Your task to perform on an android device: Go to internet settings Image 0: 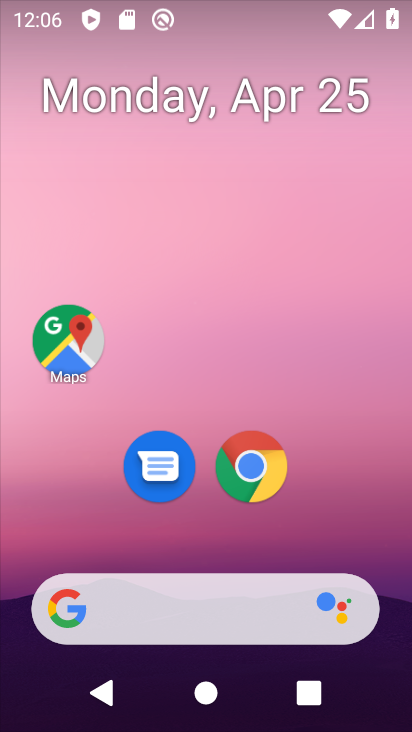
Step 0: drag from (284, 349) to (312, 47)
Your task to perform on an android device: Go to internet settings Image 1: 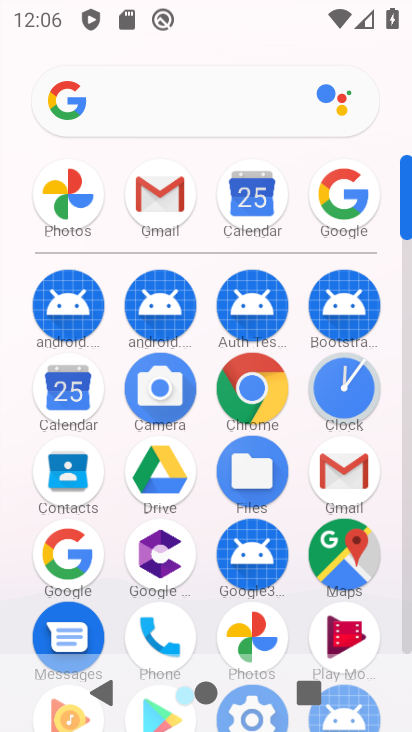
Step 1: drag from (254, 428) to (255, 177)
Your task to perform on an android device: Go to internet settings Image 2: 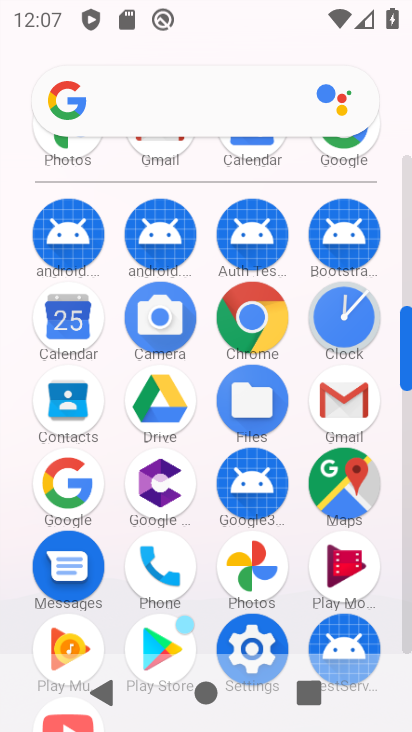
Step 2: click (272, 640)
Your task to perform on an android device: Go to internet settings Image 3: 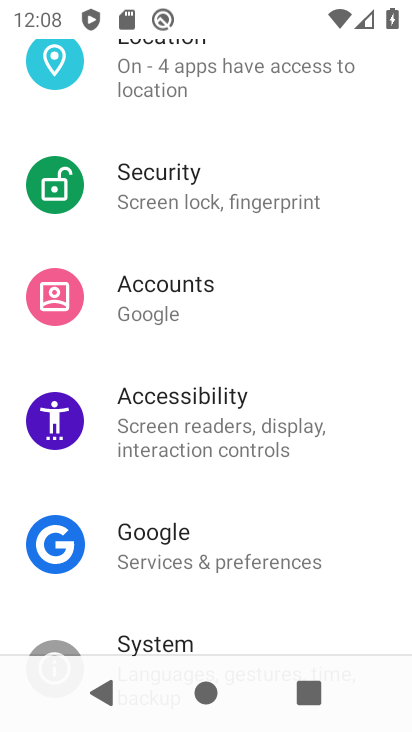
Step 3: drag from (322, 293) to (279, 730)
Your task to perform on an android device: Go to internet settings Image 4: 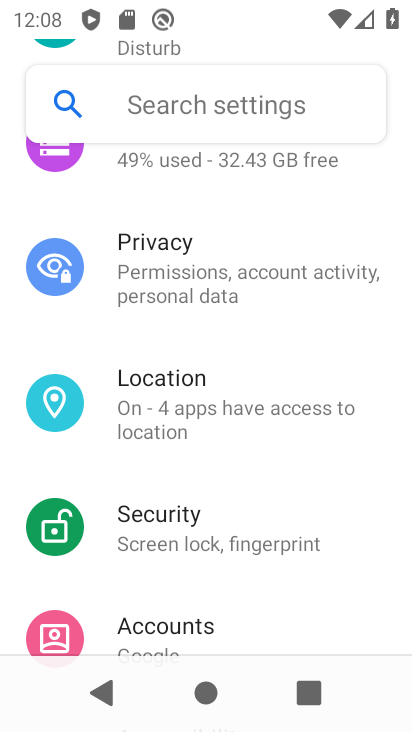
Step 4: drag from (275, 303) to (219, 659)
Your task to perform on an android device: Go to internet settings Image 5: 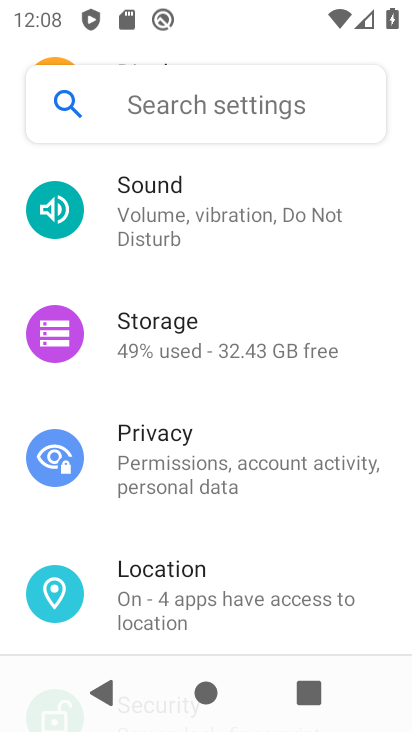
Step 5: drag from (273, 182) to (243, 573)
Your task to perform on an android device: Go to internet settings Image 6: 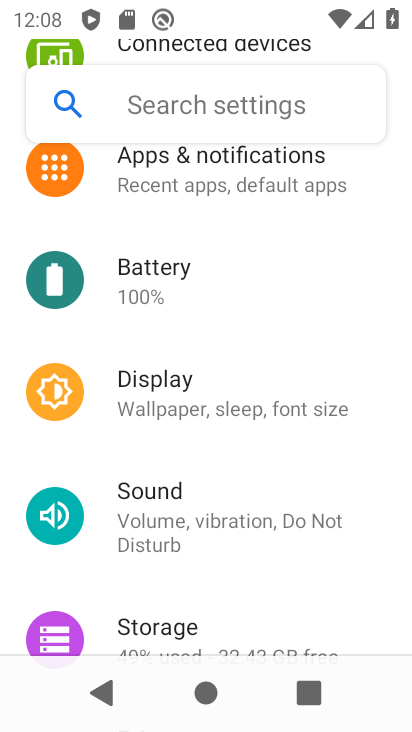
Step 6: drag from (317, 236) to (286, 575)
Your task to perform on an android device: Go to internet settings Image 7: 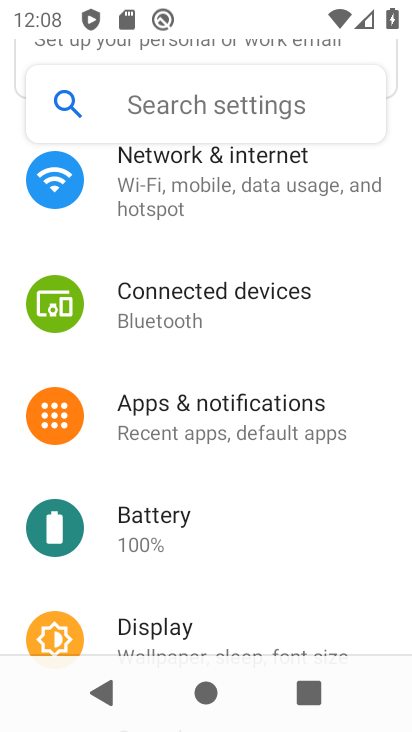
Step 7: click (207, 157)
Your task to perform on an android device: Go to internet settings Image 8: 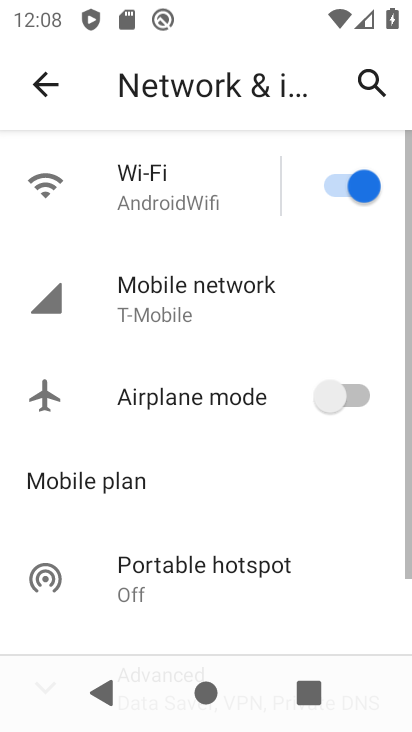
Step 8: click (165, 309)
Your task to perform on an android device: Go to internet settings Image 9: 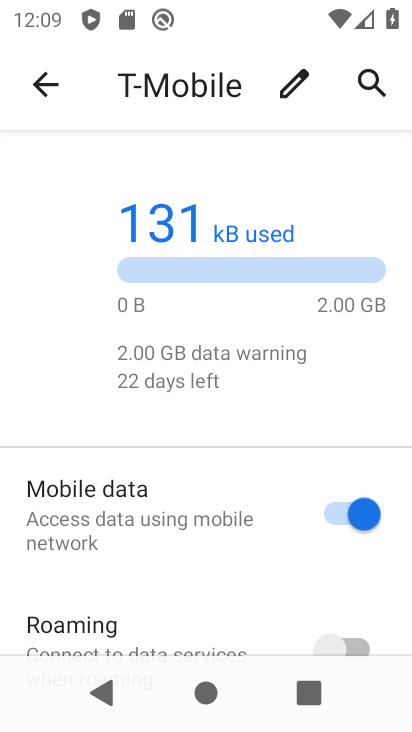
Step 9: task complete